Your task to perform on an android device: toggle location history Image 0: 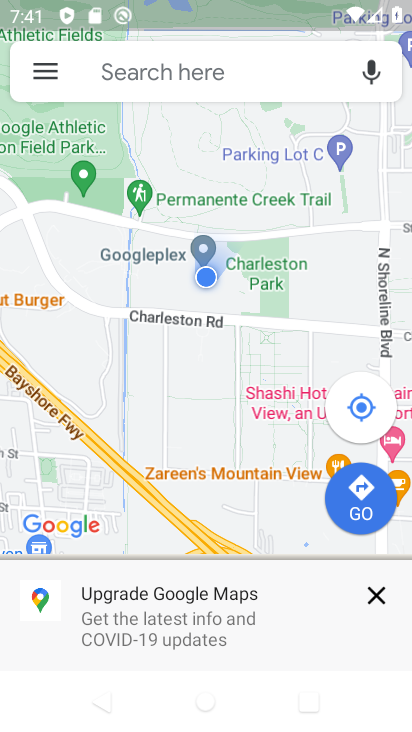
Step 0: press home button
Your task to perform on an android device: toggle location history Image 1: 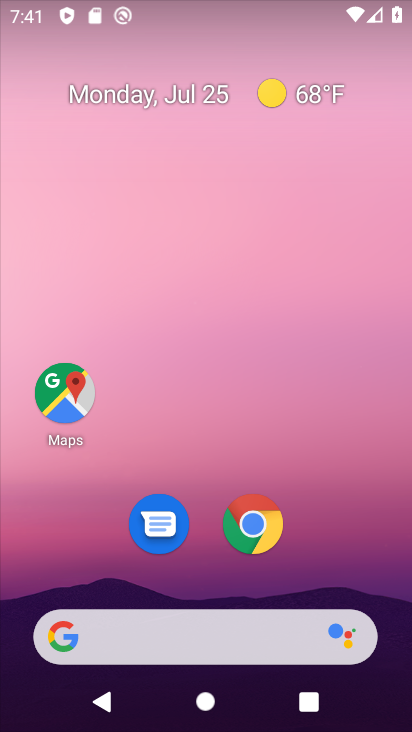
Step 1: drag from (310, 559) to (254, 45)
Your task to perform on an android device: toggle location history Image 2: 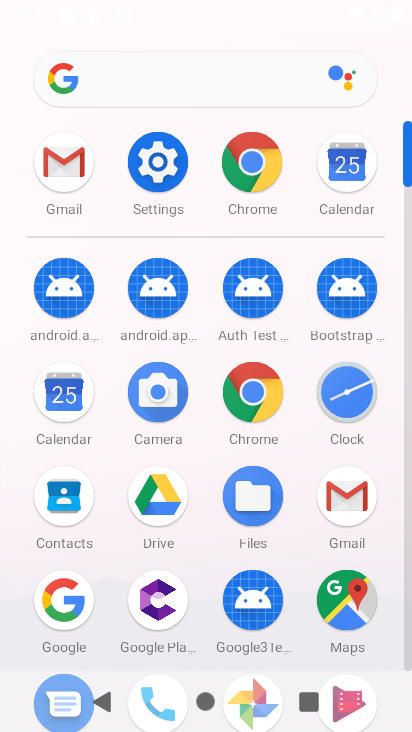
Step 2: click (160, 160)
Your task to perform on an android device: toggle location history Image 3: 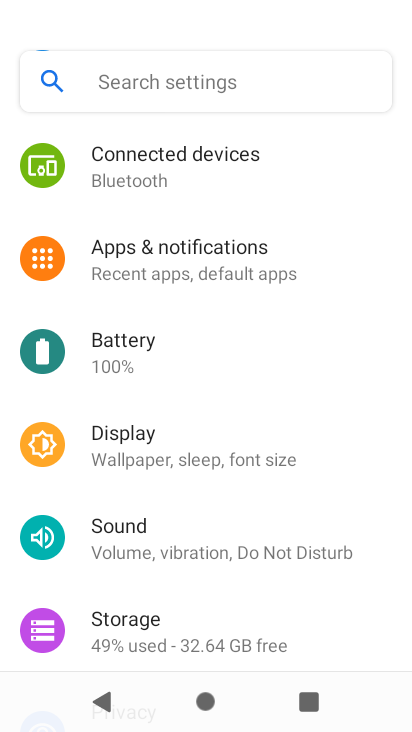
Step 3: drag from (180, 493) to (215, 95)
Your task to perform on an android device: toggle location history Image 4: 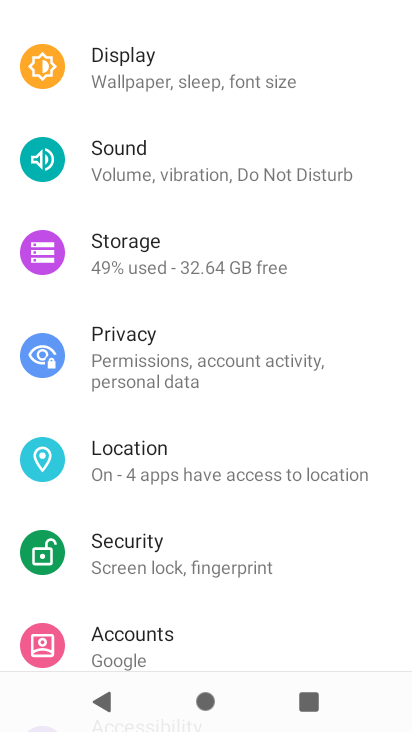
Step 4: click (230, 462)
Your task to perform on an android device: toggle location history Image 5: 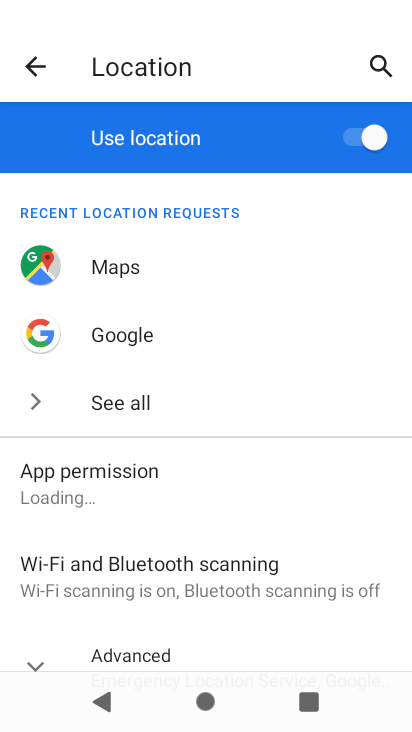
Step 5: drag from (230, 522) to (225, 195)
Your task to perform on an android device: toggle location history Image 6: 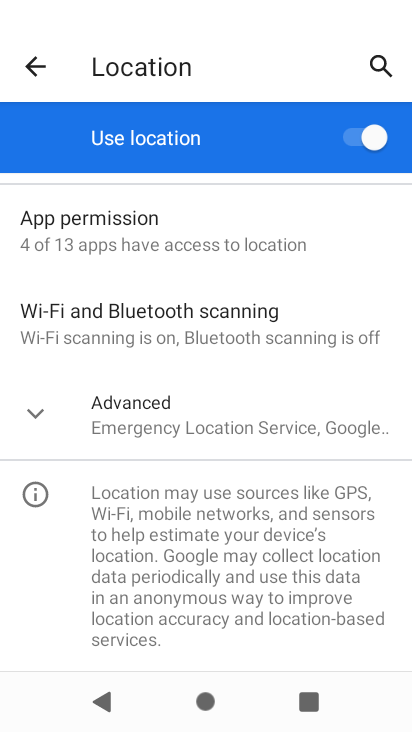
Step 6: click (38, 415)
Your task to perform on an android device: toggle location history Image 7: 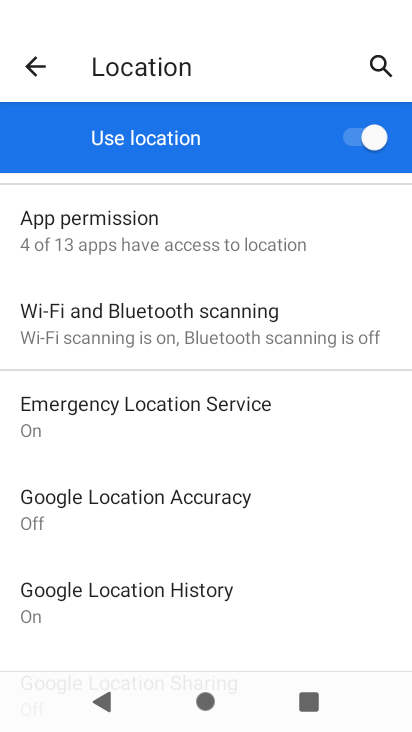
Step 7: click (175, 592)
Your task to perform on an android device: toggle location history Image 8: 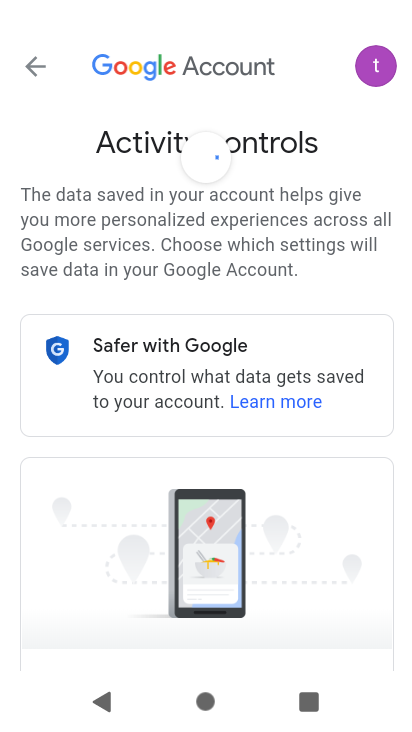
Step 8: drag from (278, 533) to (280, 14)
Your task to perform on an android device: toggle location history Image 9: 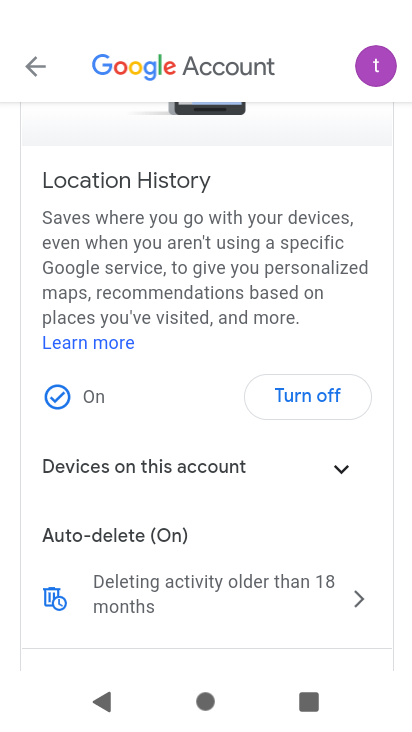
Step 9: click (302, 393)
Your task to perform on an android device: toggle location history Image 10: 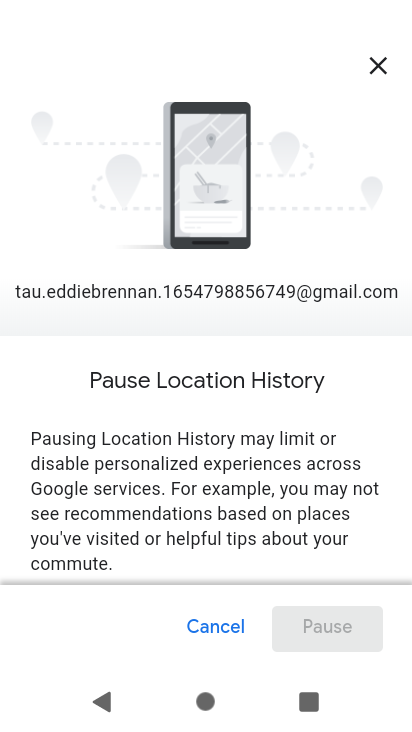
Step 10: drag from (250, 454) to (226, 135)
Your task to perform on an android device: toggle location history Image 11: 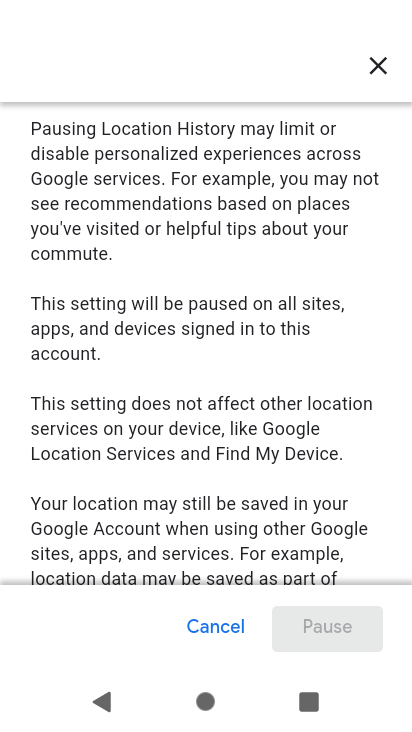
Step 11: drag from (251, 483) to (246, 9)
Your task to perform on an android device: toggle location history Image 12: 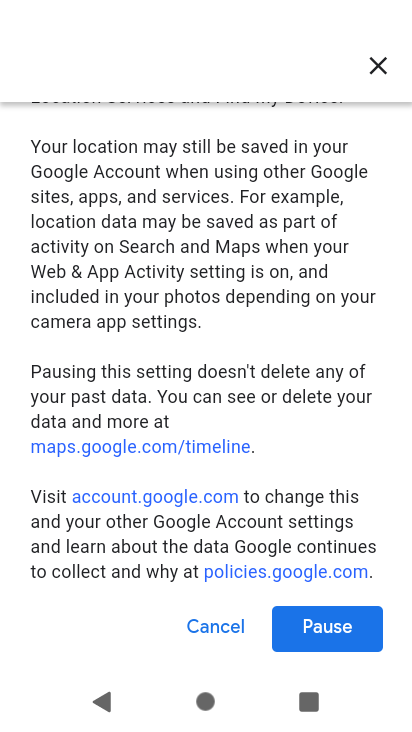
Step 12: click (346, 632)
Your task to perform on an android device: toggle location history Image 13: 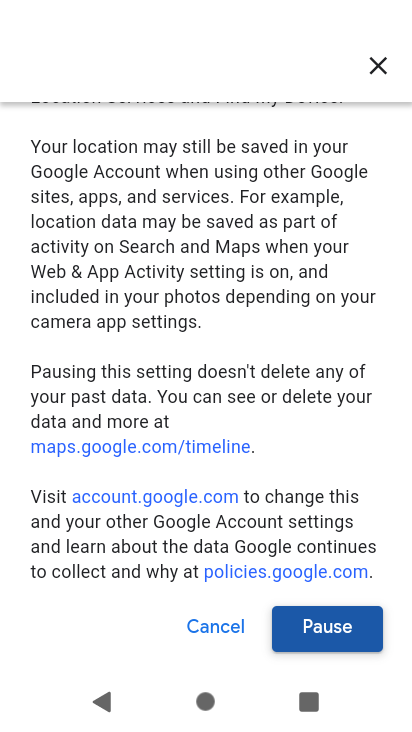
Step 13: click (346, 632)
Your task to perform on an android device: toggle location history Image 14: 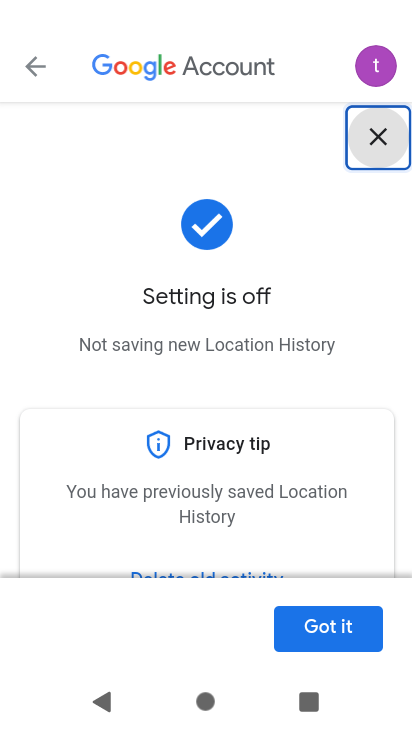
Step 14: click (346, 633)
Your task to perform on an android device: toggle location history Image 15: 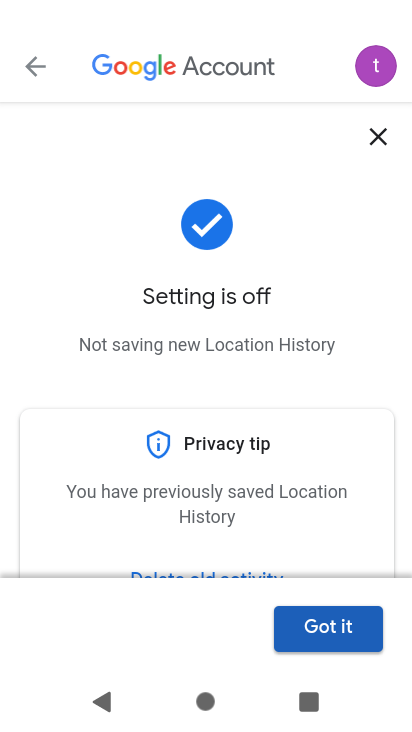
Step 15: click (346, 632)
Your task to perform on an android device: toggle location history Image 16: 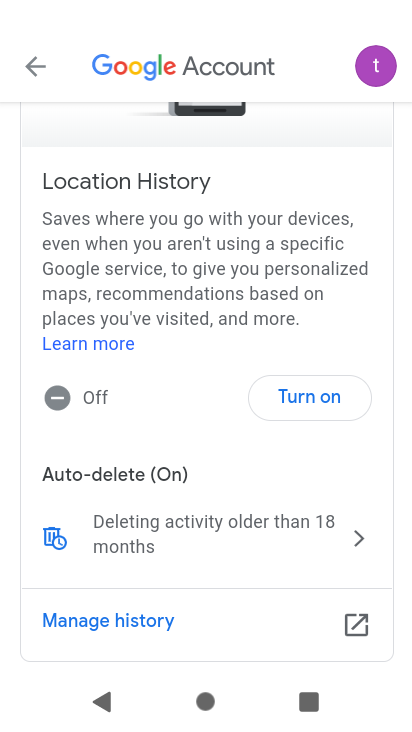
Step 16: task complete